Your task to perform on an android device: Open CNN.com Image 0: 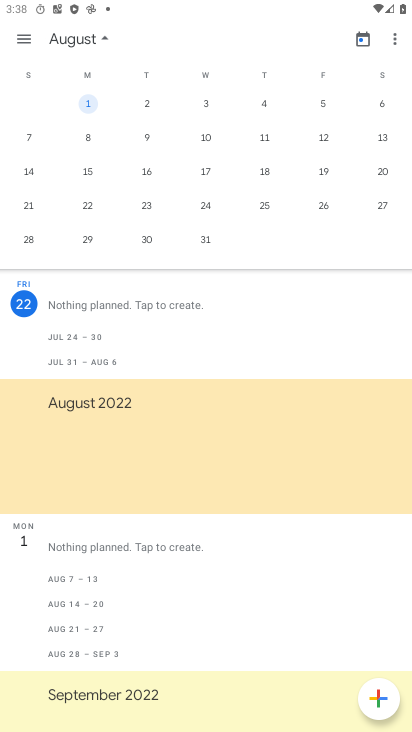
Step 0: press home button
Your task to perform on an android device: Open CNN.com Image 1: 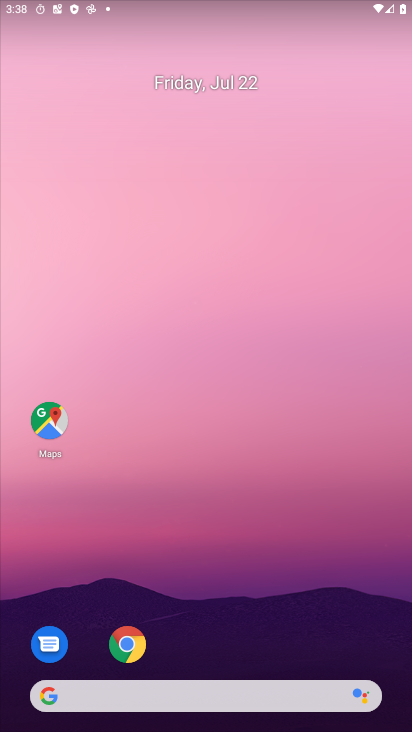
Step 1: drag from (211, 622) to (220, 153)
Your task to perform on an android device: Open CNN.com Image 2: 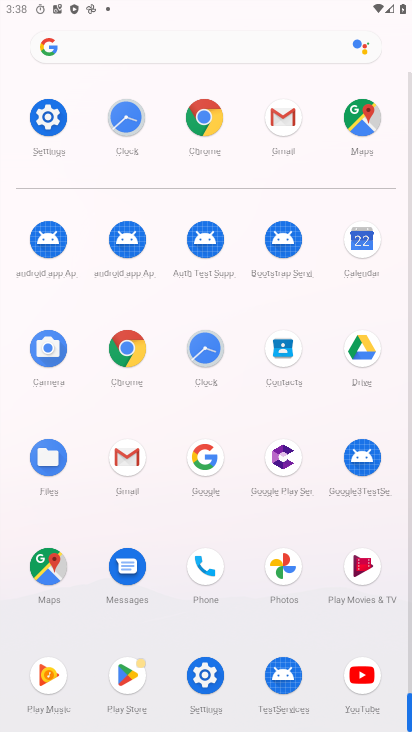
Step 2: click (212, 139)
Your task to perform on an android device: Open CNN.com Image 3: 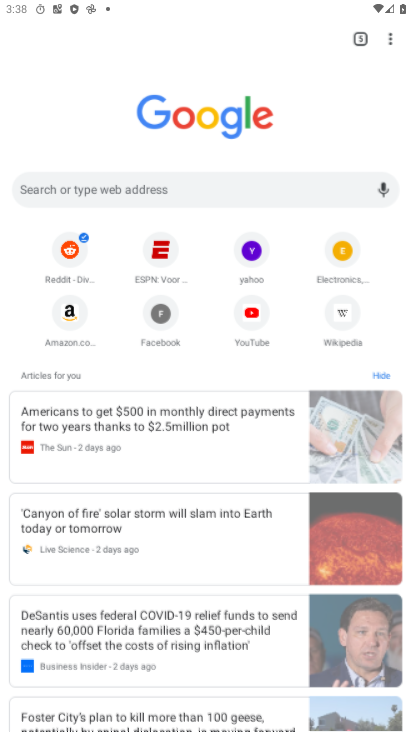
Step 3: click (248, 194)
Your task to perform on an android device: Open CNN.com Image 4: 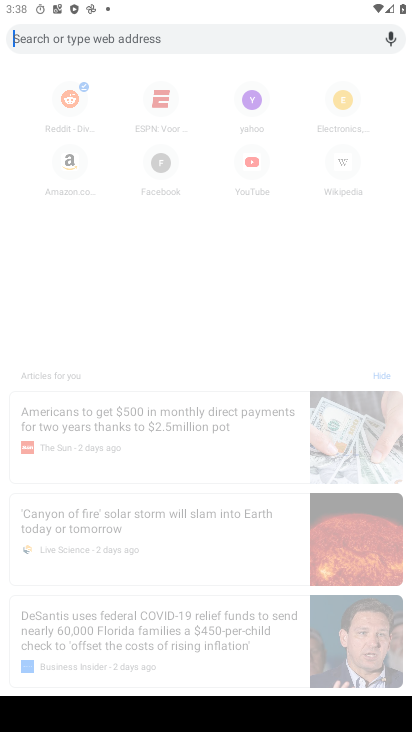
Step 4: type "cnn"
Your task to perform on an android device: Open CNN.com Image 5: 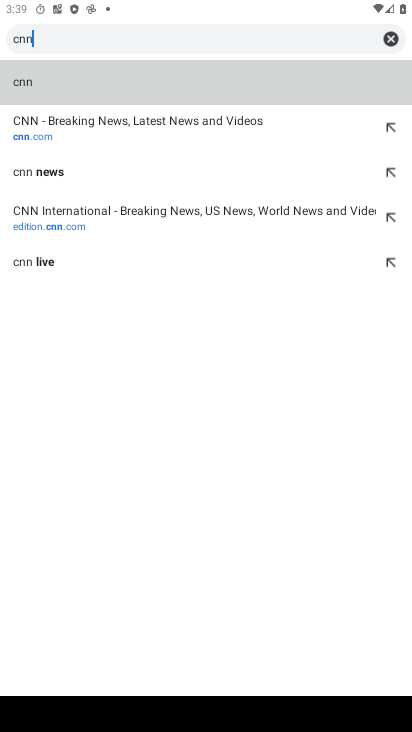
Step 5: click (234, 135)
Your task to perform on an android device: Open CNN.com Image 6: 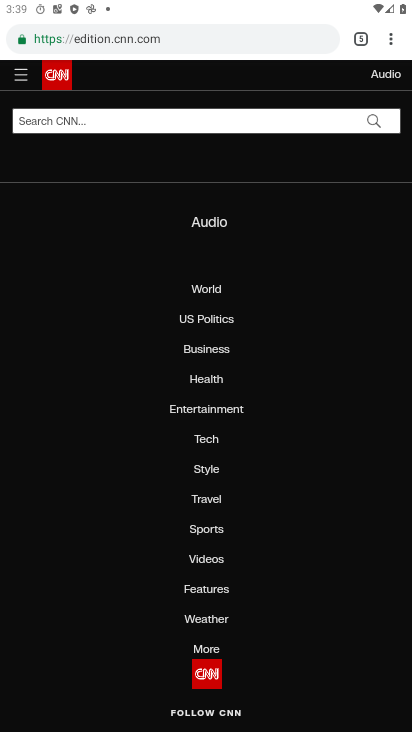
Step 6: task complete